Your task to perform on an android device: turn on wifi Image 0: 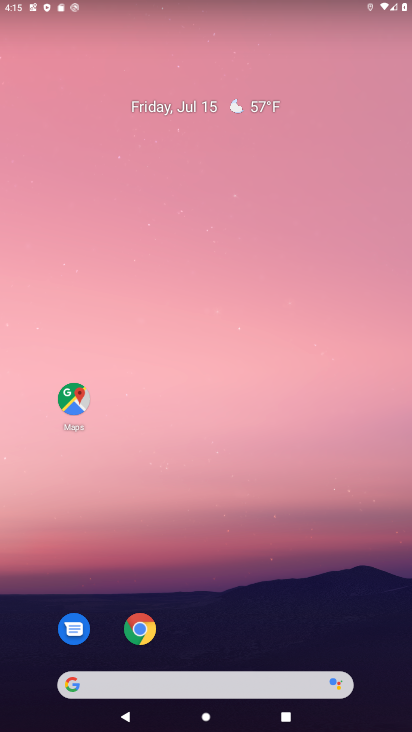
Step 0: press home button
Your task to perform on an android device: turn on wifi Image 1: 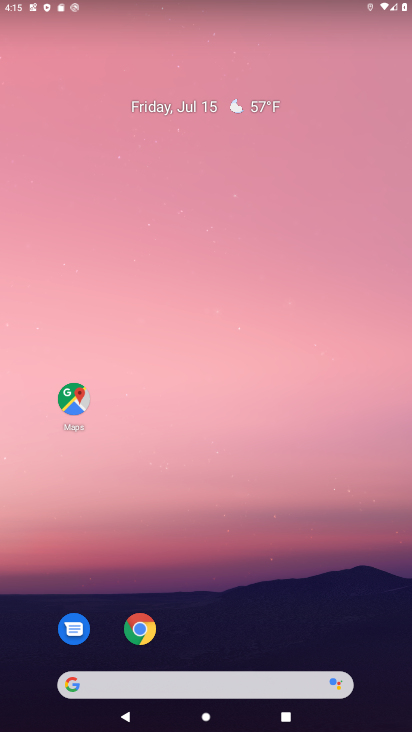
Step 1: task complete